Your task to perform on an android device: Open the Play Movies app and select the watchlist tab. Image 0: 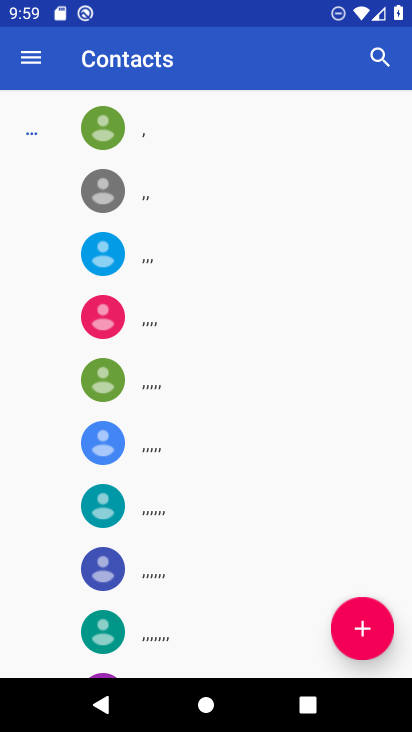
Step 0: press home button
Your task to perform on an android device: Open the Play Movies app and select the watchlist tab. Image 1: 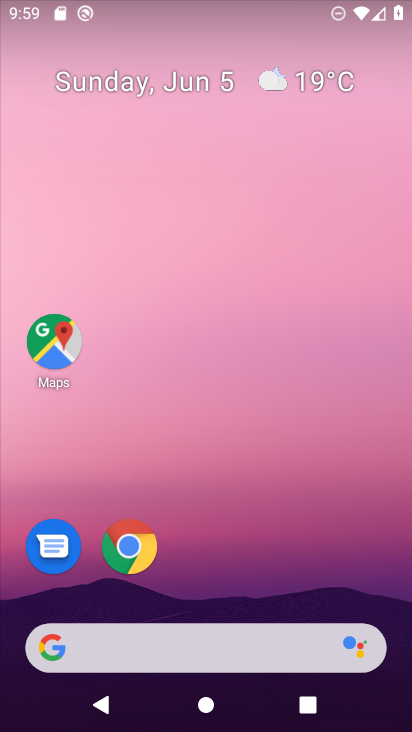
Step 1: drag from (230, 617) to (136, 55)
Your task to perform on an android device: Open the Play Movies app and select the watchlist tab. Image 2: 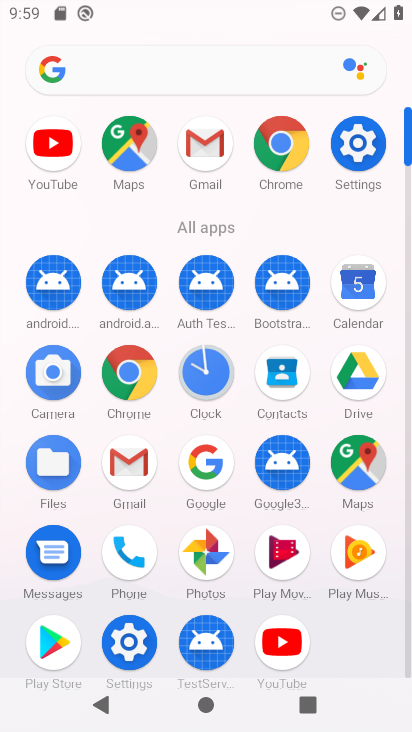
Step 2: click (273, 566)
Your task to perform on an android device: Open the Play Movies app and select the watchlist tab. Image 3: 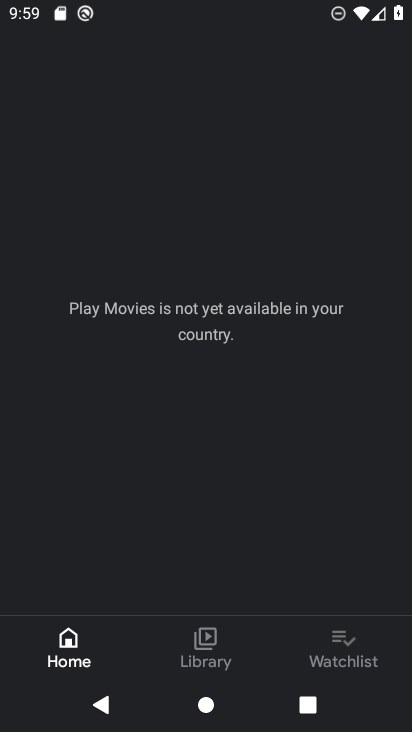
Step 3: click (368, 637)
Your task to perform on an android device: Open the Play Movies app and select the watchlist tab. Image 4: 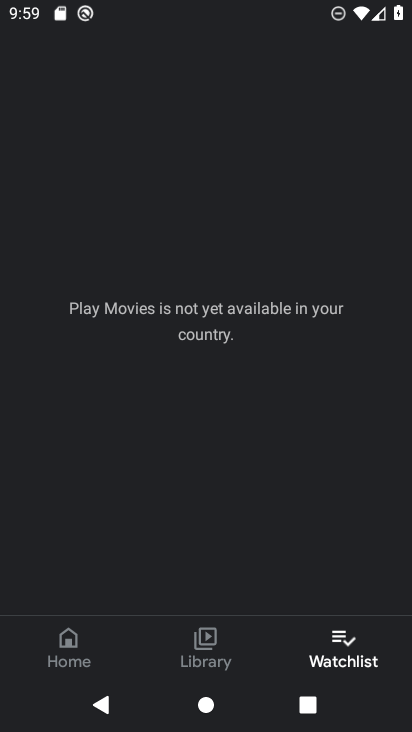
Step 4: task complete